Your task to perform on an android device: Search for Mexican restaurants on Maps Image 0: 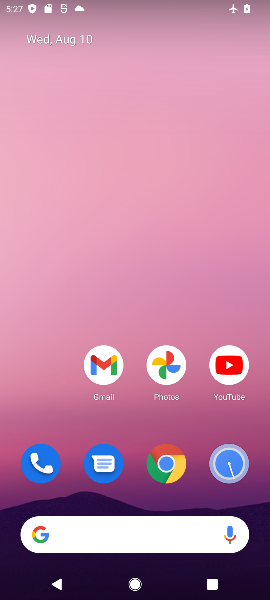
Step 0: drag from (126, 486) to (120, 33)
Your task to perform on an android device: Search for Mexican restaurants on Maps Image 1: 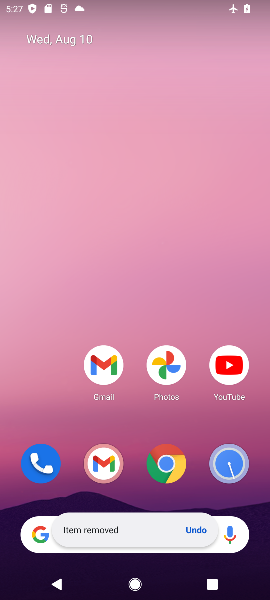
Step 1: drag from (124, 492) to (133, 166)
Your task to perform on an android device: Search for Mexican restaurants on Maps Image 2: 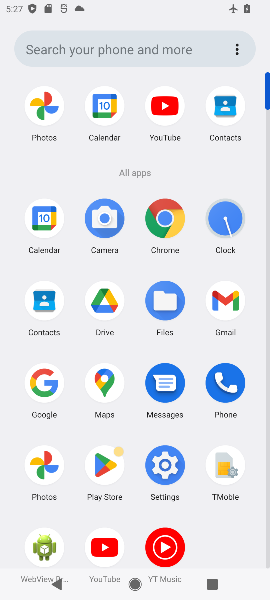
Step 2: click (100, 376)
Your task to perform on an android device: Search for Mexican restaurants on Maps Image 3: 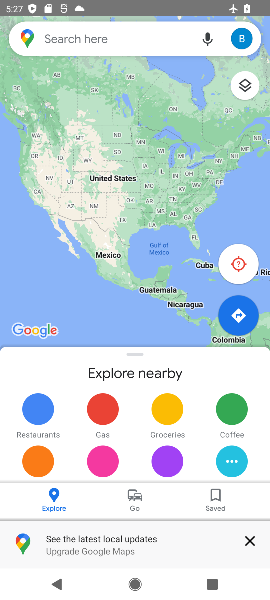
Step 3: click (98, 41)
Your task to perform on an android device: Search for Mexican restaurants on Maps Image 4: 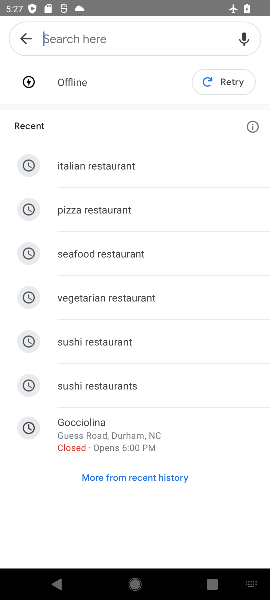
Step 4: type "maxican"
Your task to perform on an android device: Search for Mexican restaurants on Maps Image 5: 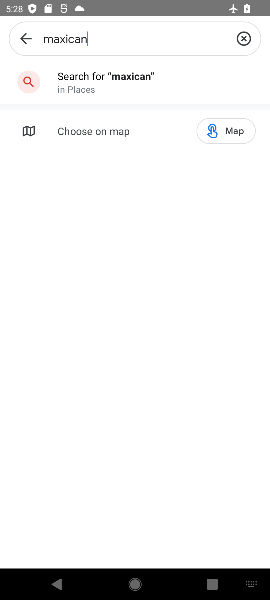
Step 5: task complete